Your task to perform on an android device: turn on data saver in the chrome app Image 0: 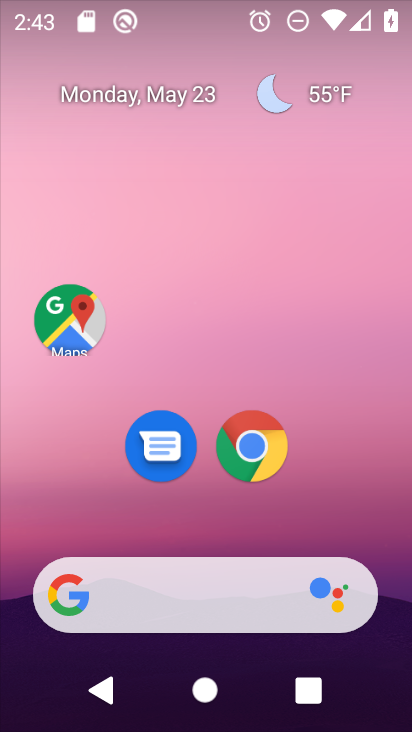
Step 0: click (274, 431)
Your task to perform on an android device: turn on data saver in the chrome app Image 1: 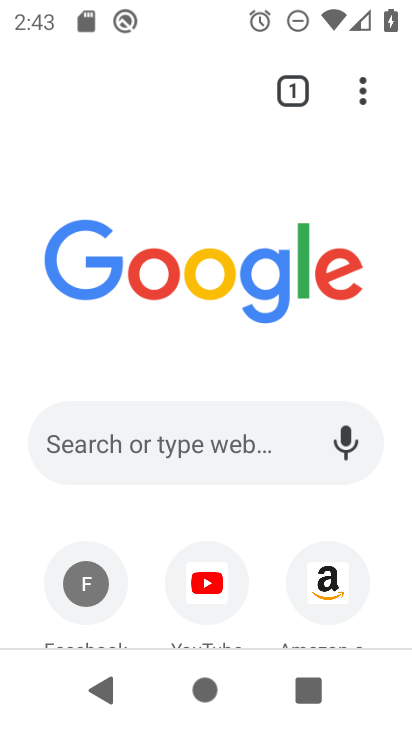
Step 1: drag from (362, 82) to (93, 483)
Your task to perform on an android device: turn on data saver in the chrome app Image 2: 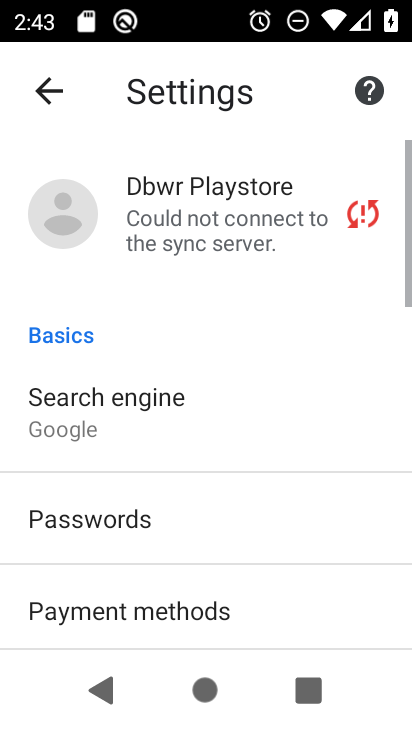
Step 2: drag from (109, 584) to (165, 238)
Your task to perform on an android device: turn on data saver in the chrome app Image 3: 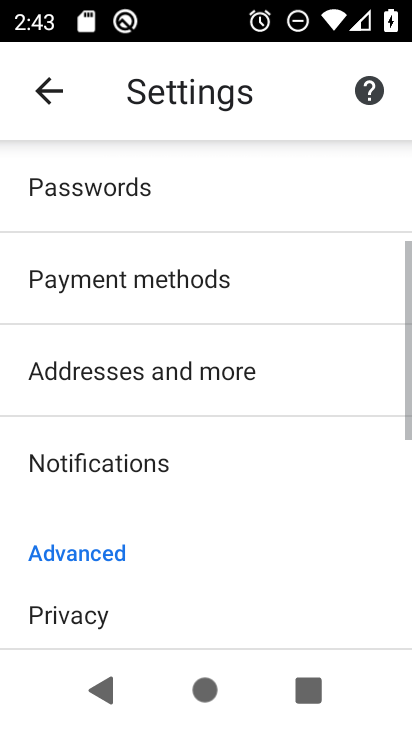
Step 3: drag from (157, 531) to (188, 256)
Your task to perform on an android device: turn on data saver in the chrome app Image 4: 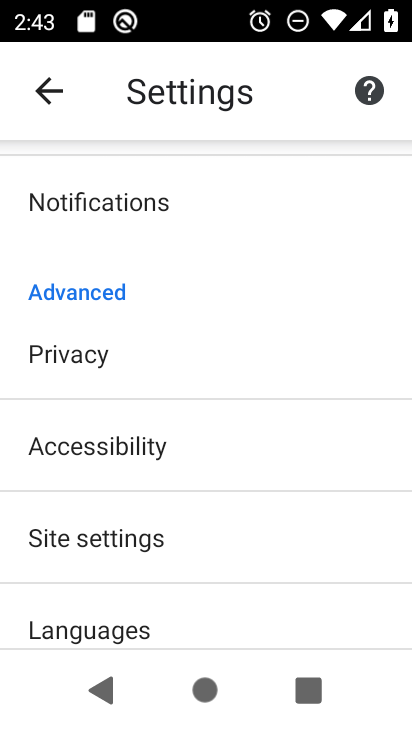
Step 4: drag from (186, 575) to (158, 277)
Your task to perform on an android device: turn on data saver in the chrome app Image 5: 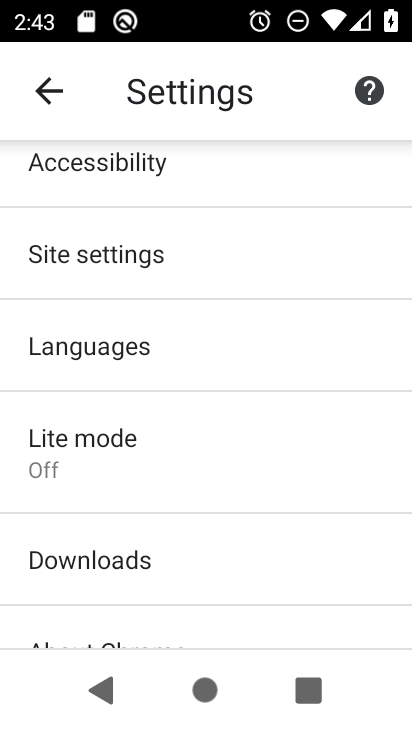
Step 5: drag from (123, 522) to (135, 321)
Your task to perform on an android device: turn on data saver in the chrome app Image 6: 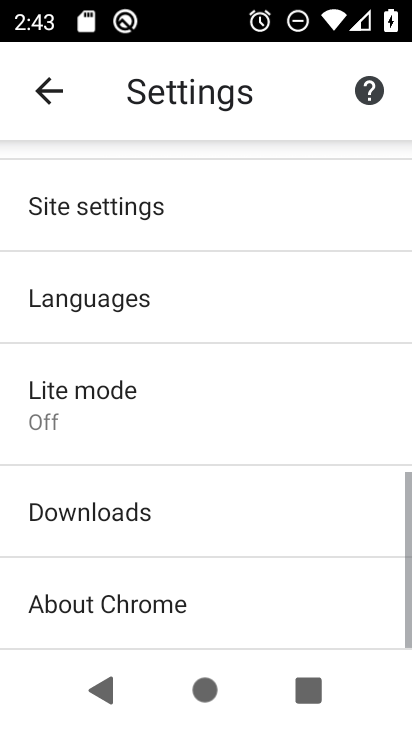
Step 6: click (113, 407)
Your task to perform on an android device: turn on data saver in the chrome app Image 7: 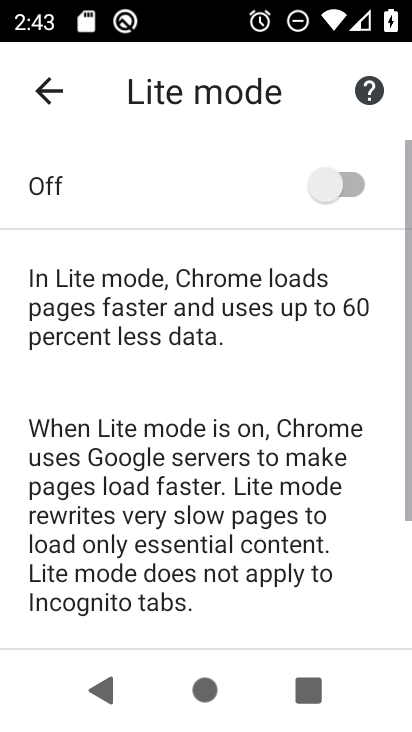
Step 7: click (336, 188)
Your task to perform on an android device: turn on data saver in the chrome app Image 8: 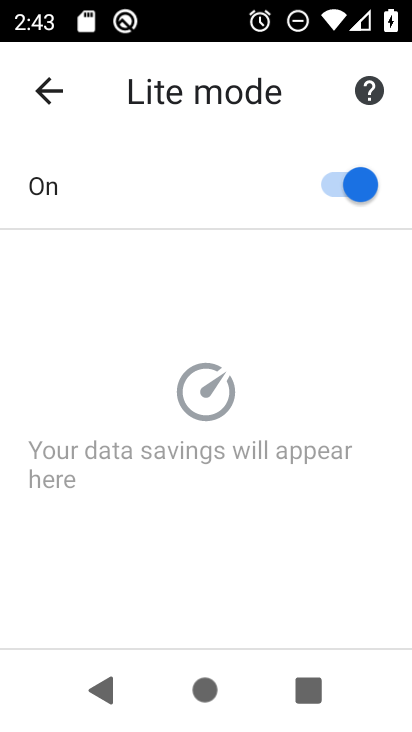
Step 8: task complete